Your task to perform on an android device: Is it going to rain this weekend? Image 0: 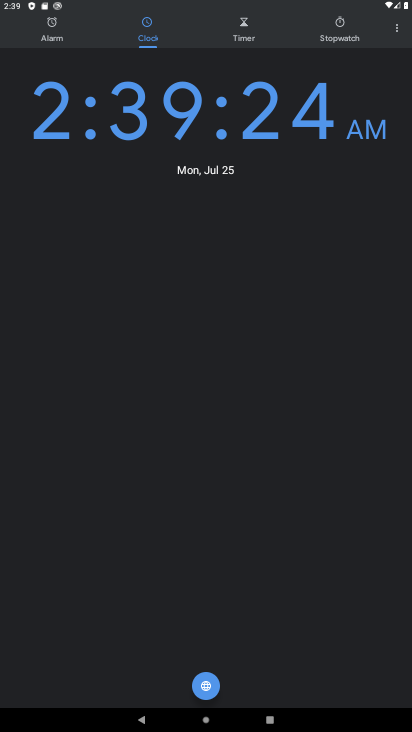
Step 0: press home button
Your task to perform on an android device: Is it going to rain this weekend? Image 1: 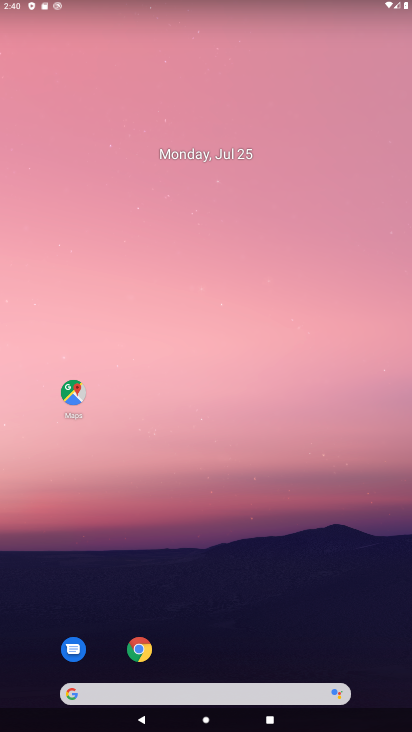
Step 1: click (135, 698)
Your task to perform on an android device: Is it going to rain this weekend? Image 2: 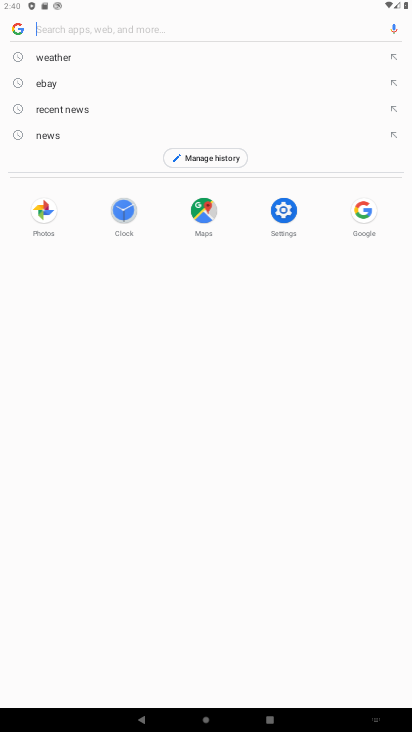
Step 2: type "Is it going to rain this weekend?"
Your task to perform on an android device: Is it going to rain this weekend? Image 3: 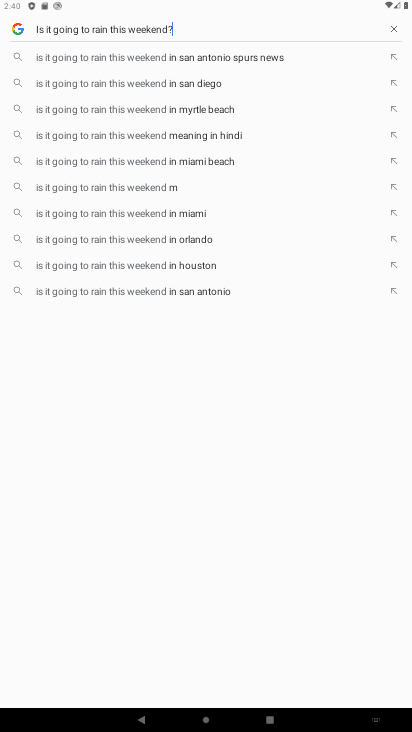
Step 3: press enter
Your task to perform on an android device: Is it going to rain this weekend? Image 4: 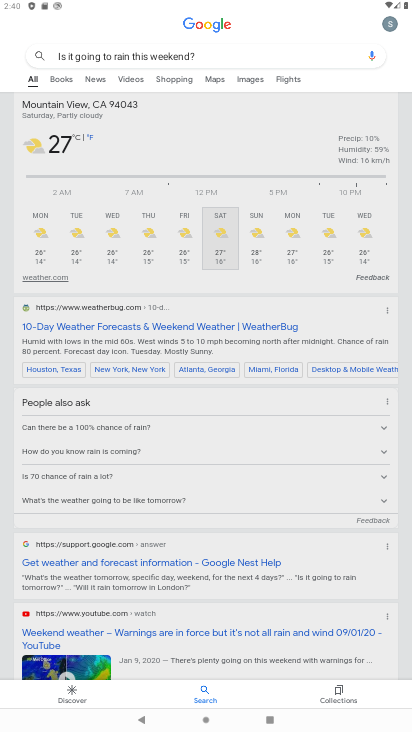
Step 4: task complete